Your task to perform on an android device: Open Google Chrome Image 0: 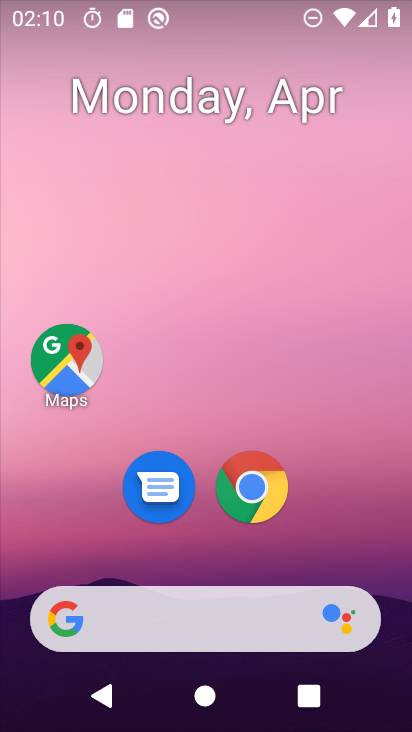
Step 0: drag from (319, 609) to (253, 194)
Your task to perform on an android device: Open Google Chrome Image 1: 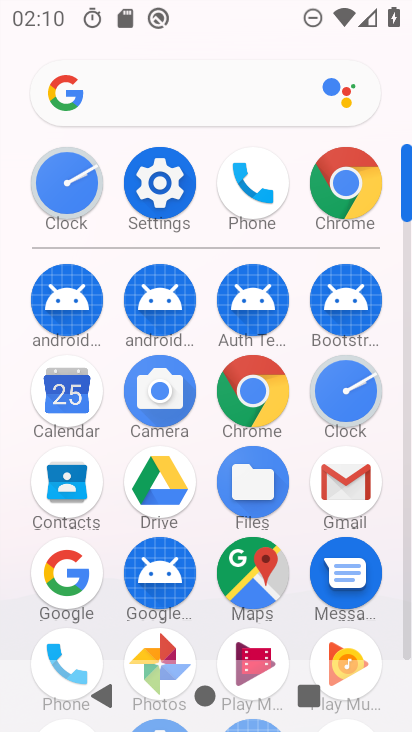
Step 1: click (267, 388)
Your task to perform on an android device: Open Google Chrome Image 2: 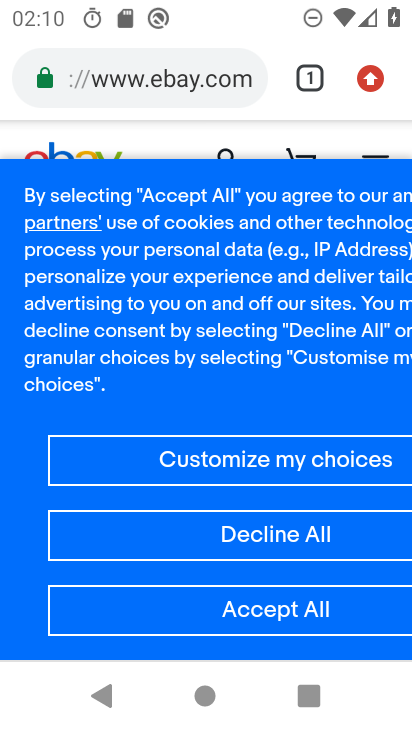
Step 2: click (374, 82)
Your task to perform on an android device: Open Google Chrome Image 3: 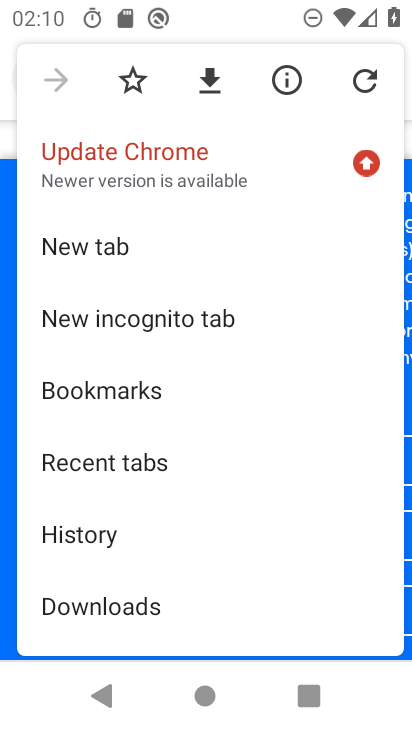
Step 3: click (91, 246)
Your task to perform on an android device: Open Google Chrome Image 4: 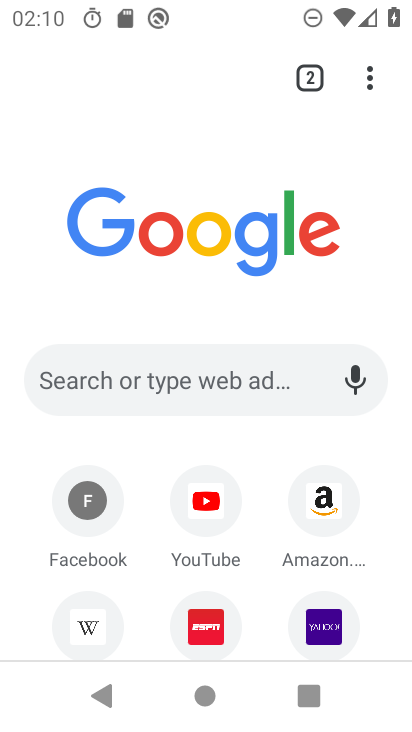
Step 4: task complete